Your task to perform on an android device: Go to sound settings Image 0: 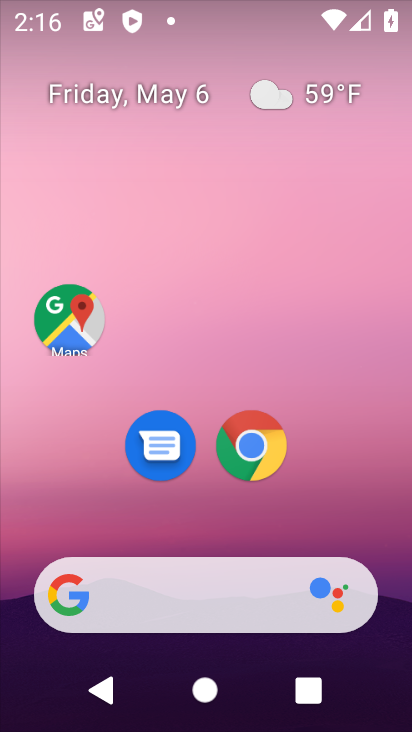
Step 0: click (257, 113)
Your task to perform on an android device: Go to sound settings Image 1: 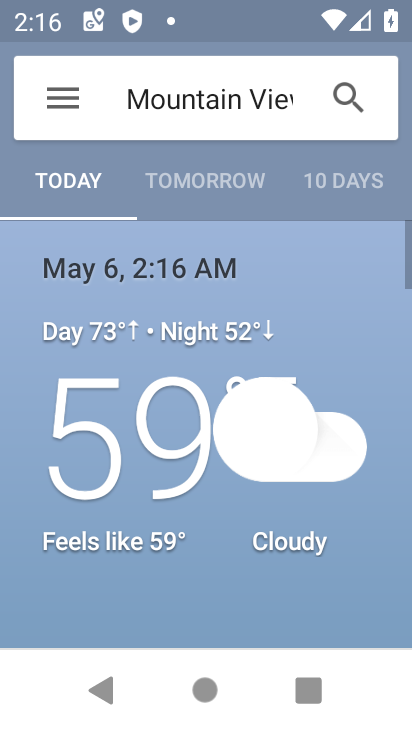
Step 1: press home button
Your task to perform on an android device: Go to sound settings Image 2: 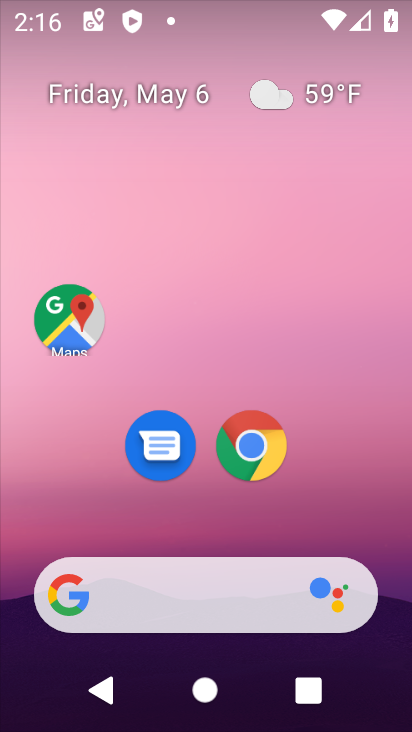
Step 2: drag from (352, 481) to (196, 0)
Your task to perform on an android device: Go to sound settings Image 3: 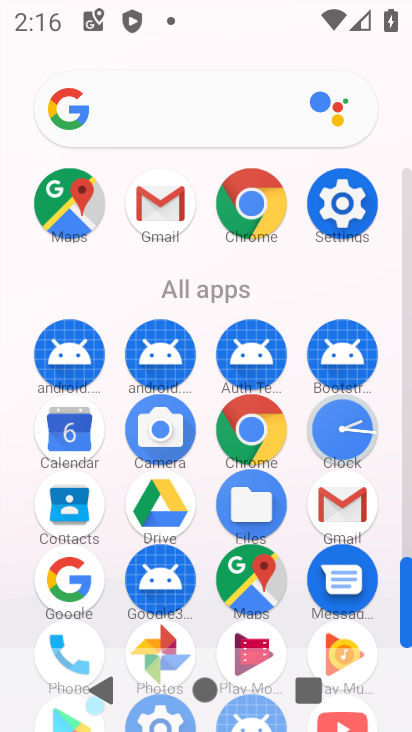
Step 3: click (334, 211)
Your task to perform on an android device: Go to sound settings Image 4: 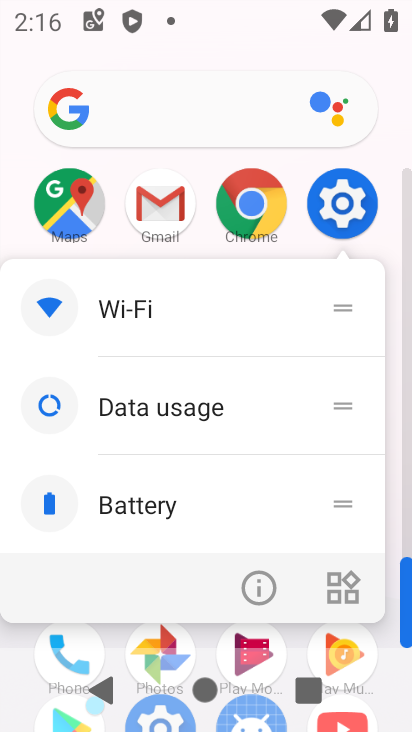
Step 4: click (331, 199)
Your task to perform on an android device: Go to sound settings Image 5: 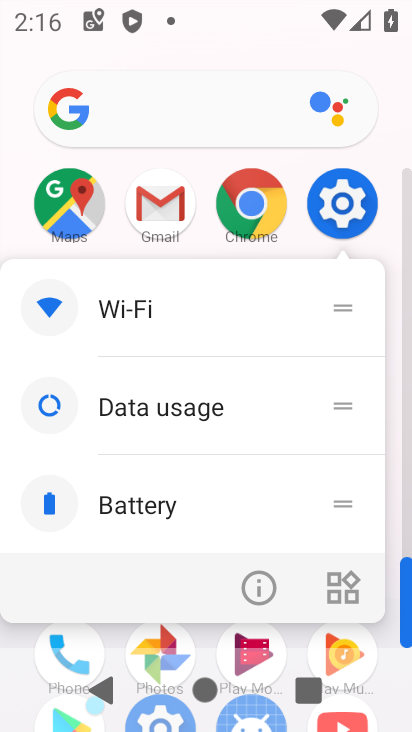
Step 5: click (335, 223)
Your task to perform on an android device: Go to sound settings Image 6: 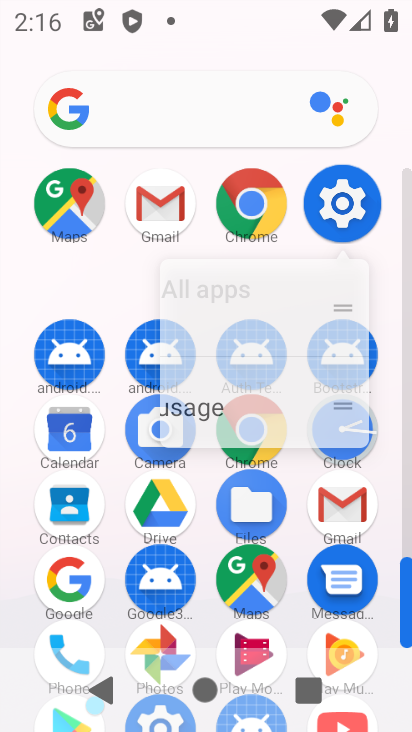
Step 6: click (335, 223)
Your task to perform on an android device: Go to sound settings Image 7: 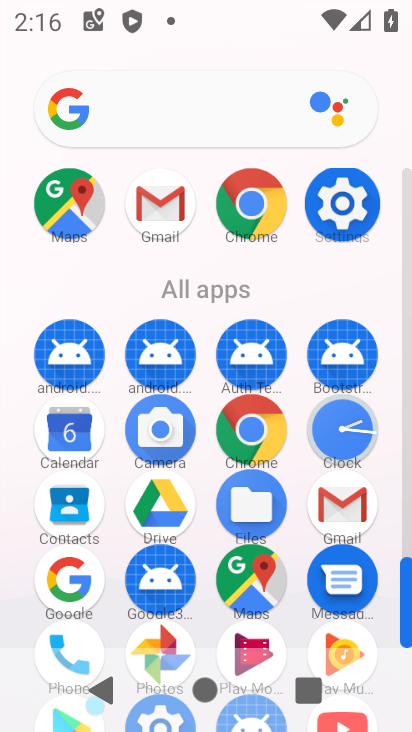
Step 7: click (336, 222)
Your task to perform on an android device: Go to sound settings Image 8: 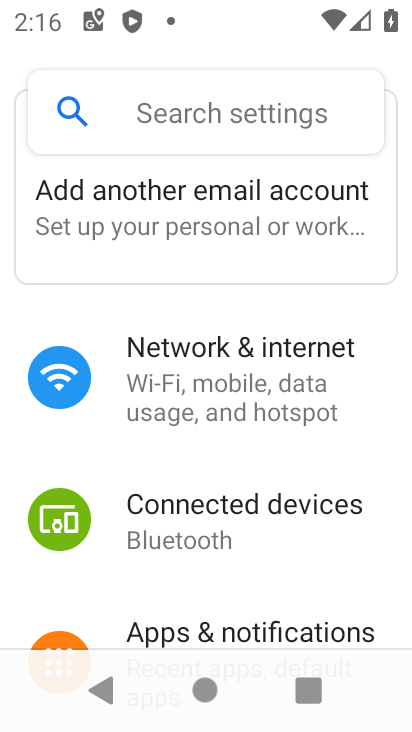
Step 8: drag from (219, 531) to (200, 146)
Your task to perform on an android device: Go to sound settings Image 9: 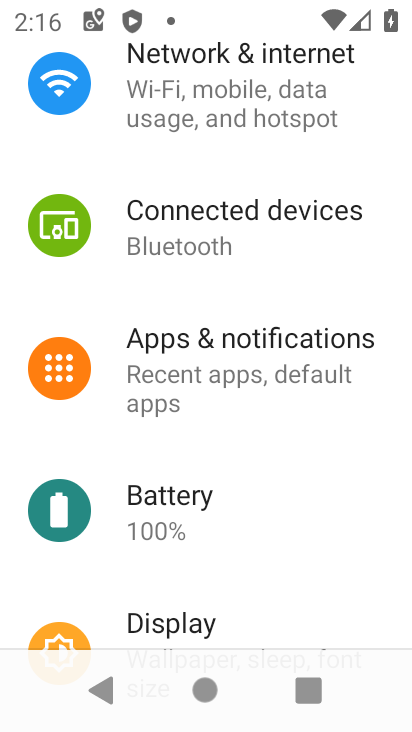
Step 9: drag from (185, 459) to (200, 221)
Your task to perform on an android device: Go to sound settings Image 10: 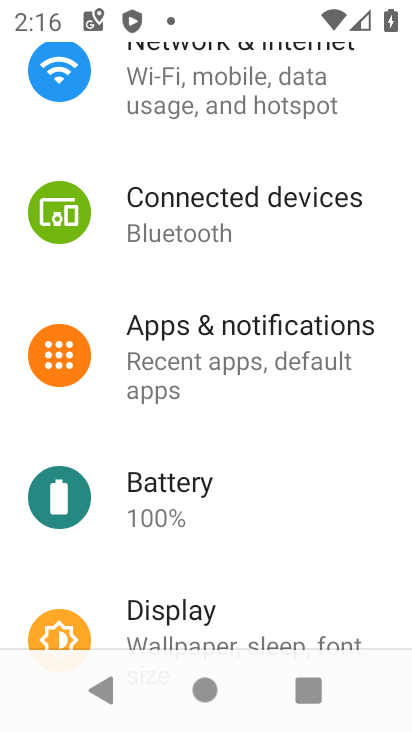
Step 10: drag from (233, 358) to (226, 188)
Your task to perform on an android device: Go to sound settings Image 11: 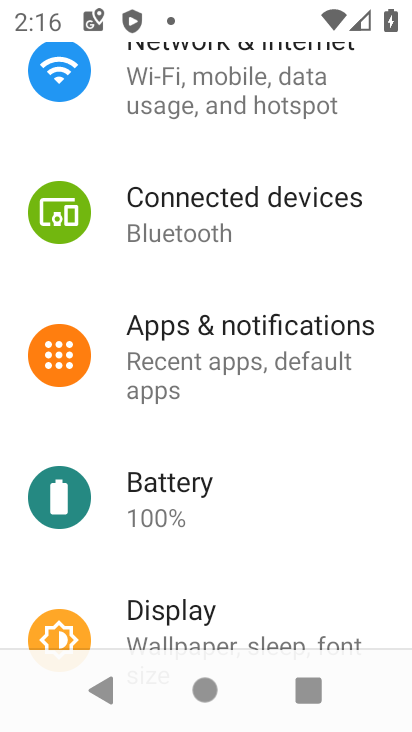
Step 11: drag from (208, 554) to (210, 144)
Your task to perform on an android device: Go to sound settings Image 12: 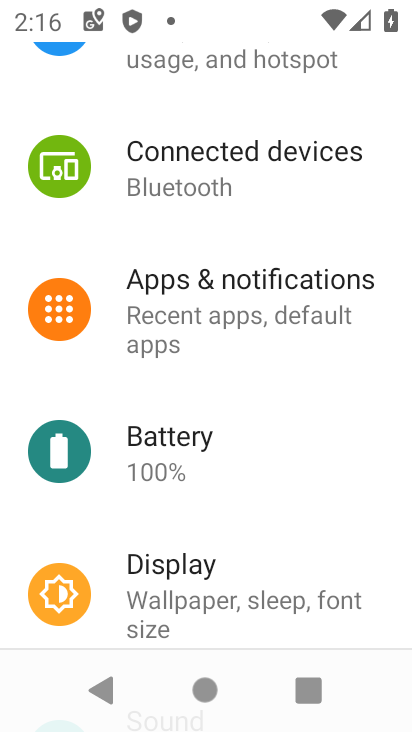
Step 12: drag from (229, 537) to (225, 121)
Your task to perform on an android device: Go to sound settings Image 13: 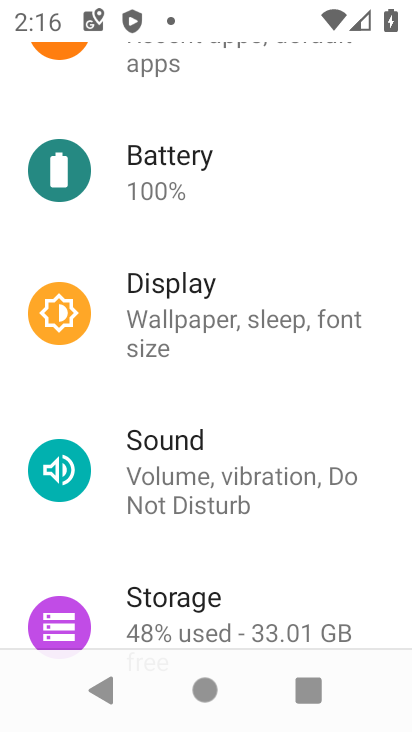
Step 13: drag from (170, 527) to (179, 163)
Your task to perform on an android device: Go to sound settings Image 14: 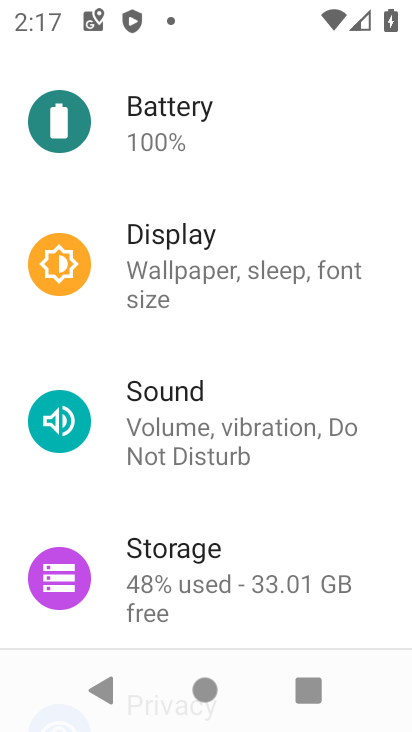
Step 14: click (183, 428)
Your task to perform on an android device: Go to sound settings Image 15: 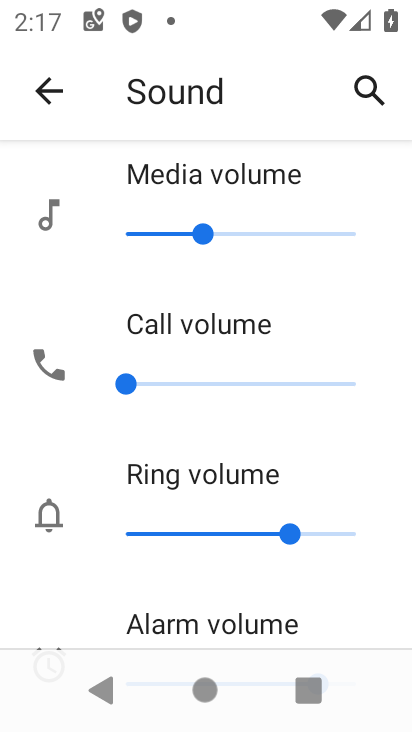
Step 15: task complete